Your task to perform on an android device: Go to Amazon Image 0: 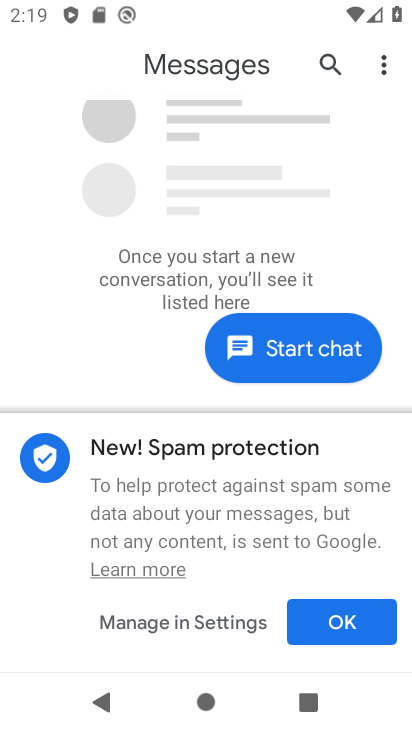
Step 0: press home button
Your task to perform on an android device: Go to Amazon Image 1: 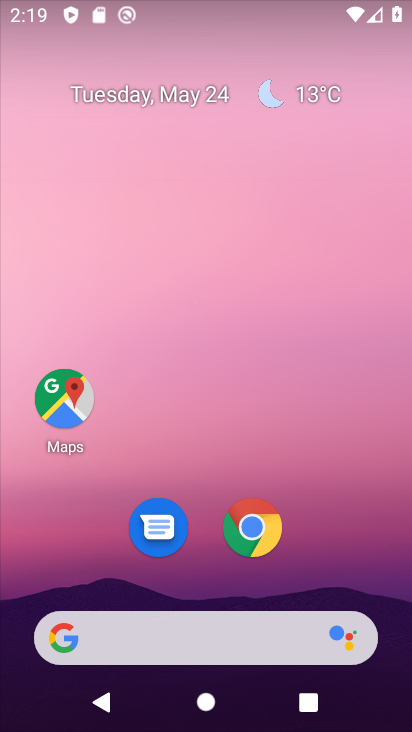
Step 1: click (245, 527)
Your task to perform on an android device: Go to Amazon Image 2: 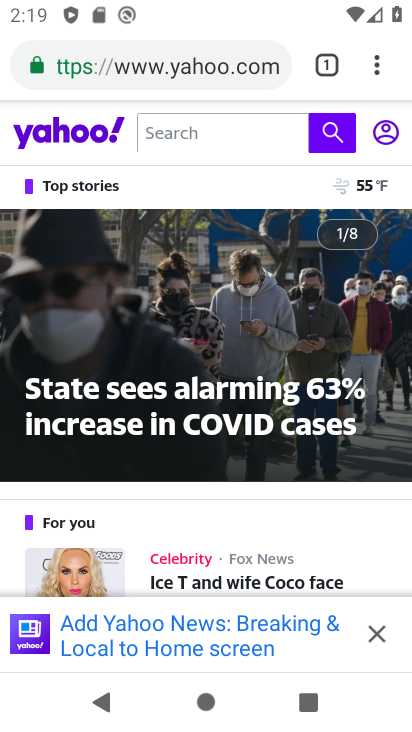
Step 2: click (178, 68)
Your task to perform on an android device: Go to Amazon Image 3: 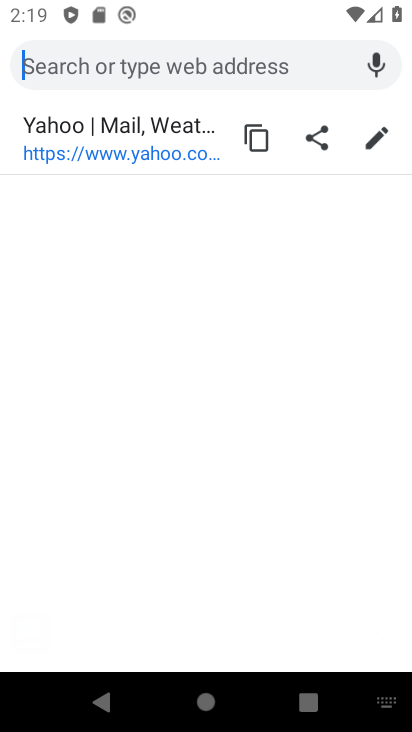
Step 3: type "amazon"
Your task to perform on an android device: Go to Amazon Image 4: 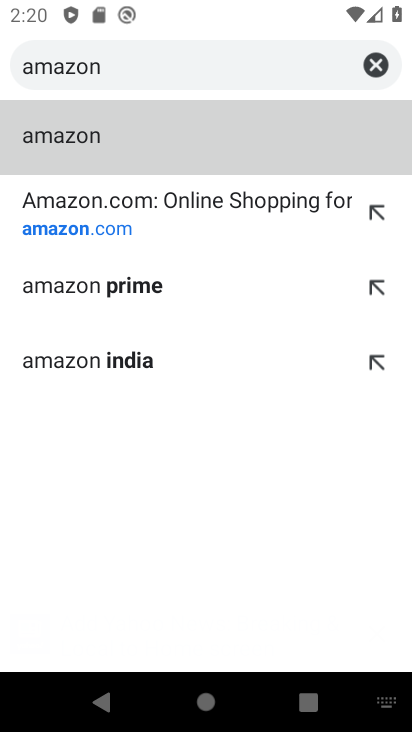
Step 4: click (119, 144)
Your task to perform on an android device: Go to Amazon Image 5: 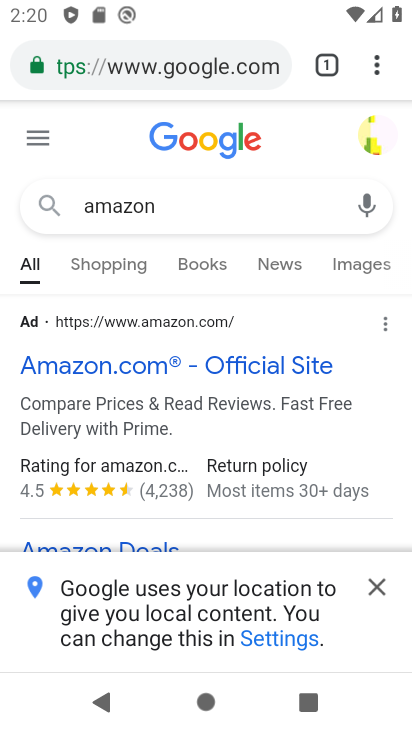
Step 5: click (135, 363)
Your task to perform on an android device: Go to Amazon Image 6: 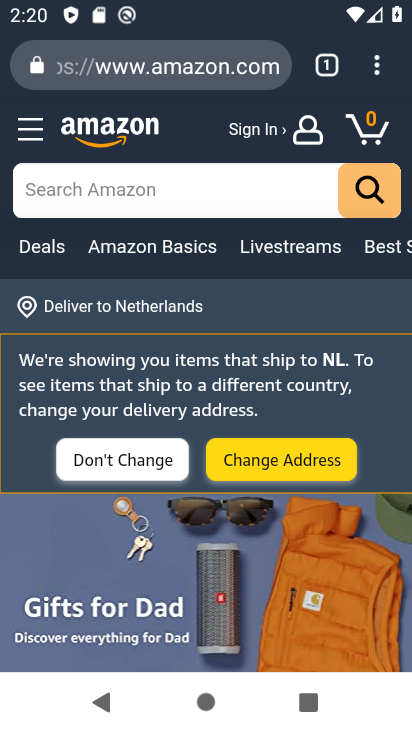
Step 6: task complete